Your task to perform on an android device: turn on airplane mode Image 0: 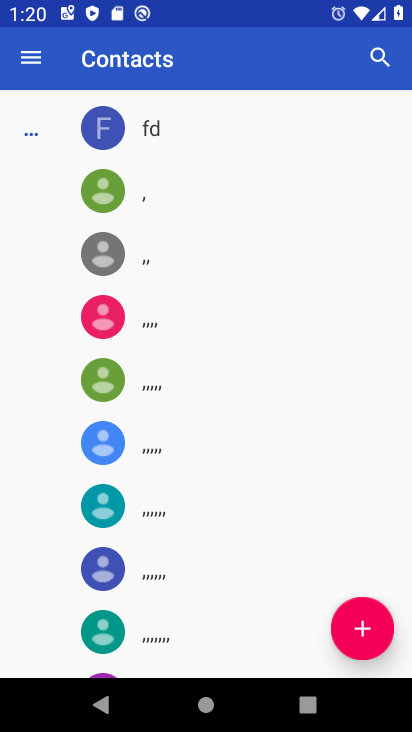
Step 0: press home button
Your task to perform on an android device: turn on airplane mode Image 1: 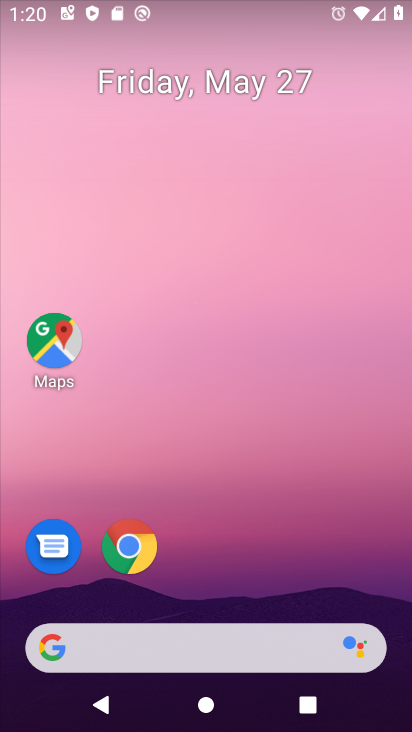
Step 1: drag from (264, 654) to (258, 161)
Your task to perform on an android device: turn on airplane mode Image 2: 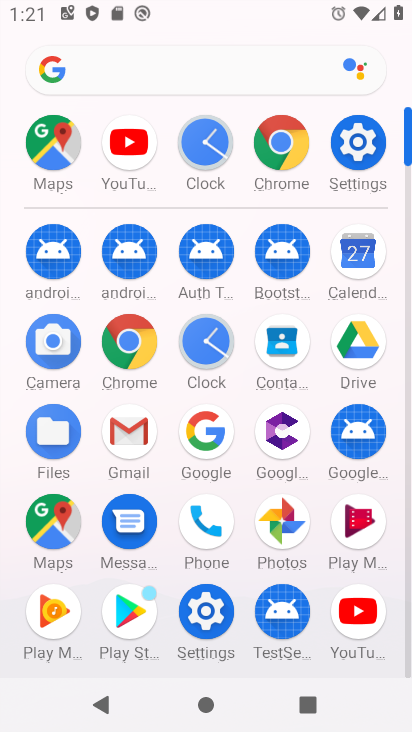
Step 2: click (205, 612)
Your task to perform on an android device: turn on airplane mode Image 3: 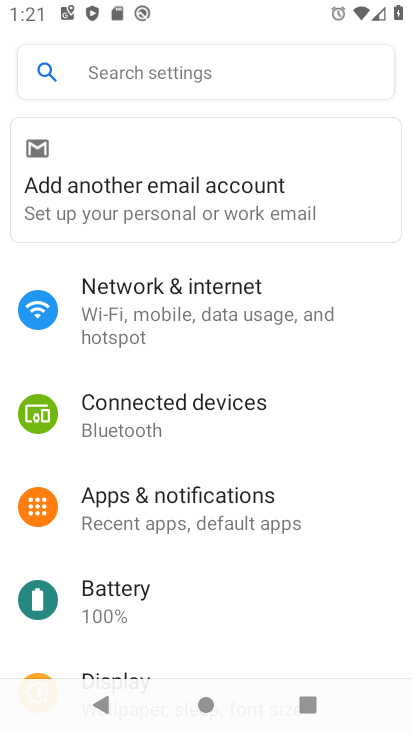
Step 3: click (191, 296)
Your task to perform on an android device: turn on airplane mode Image 4: 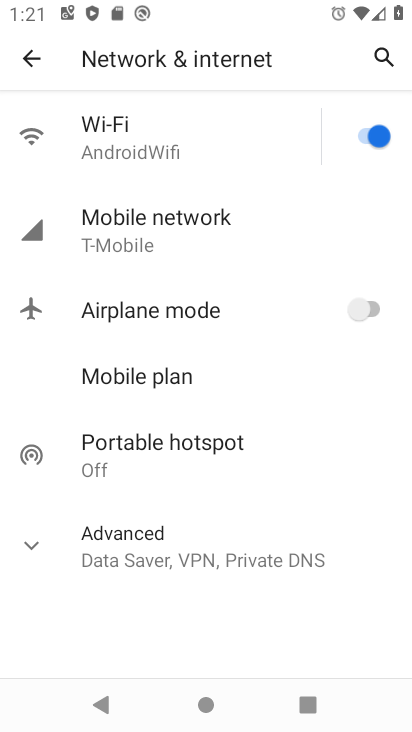
Step 4: click (356, 296)
Your task to perform on an android device: turn on airplane mode Image 5: 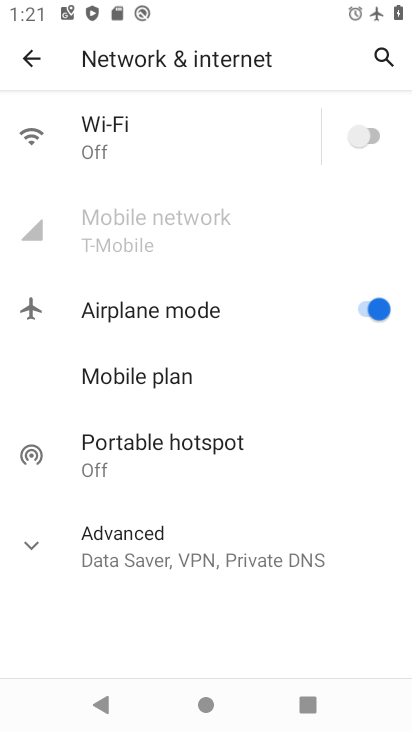
Step 5: task complete